Your task to perform on an android device: turn off translation in the chrome app Image 0: 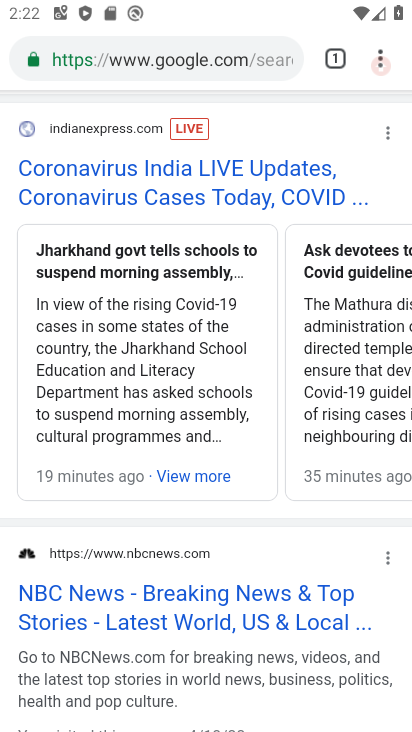
Step 0: press home button
Your task to perform on an android device: turn off translation in the chrome app Image 1: 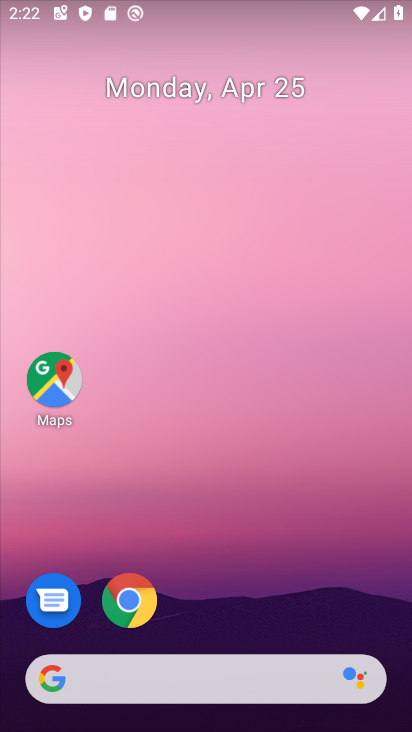
Step 1: drag from (383, 573) to (331, 139)
Your task to perform on an android device: turn off translation in the chrome app Image 2: 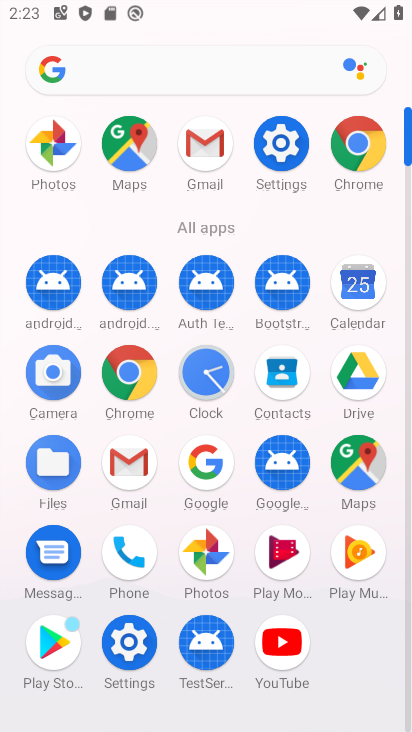
Step 2: click (120, 378)
Your task to perform on an android device: turn off translation in the chrome app Image 3: 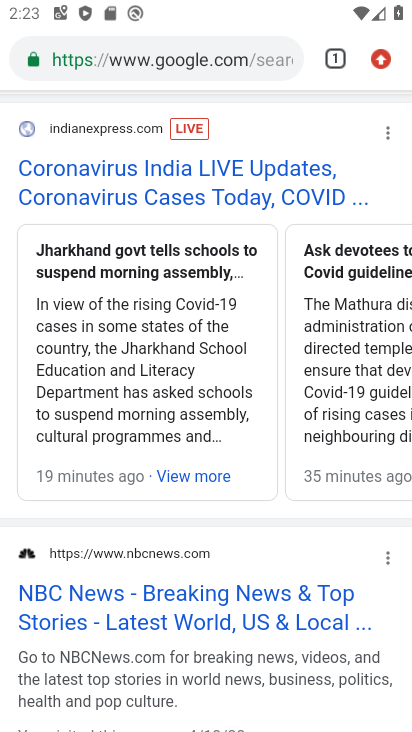
Step 3: drag from (380, 55) to (194, 637)
Your task to perform on an android device: turn off translation in the chrome app Image 4: 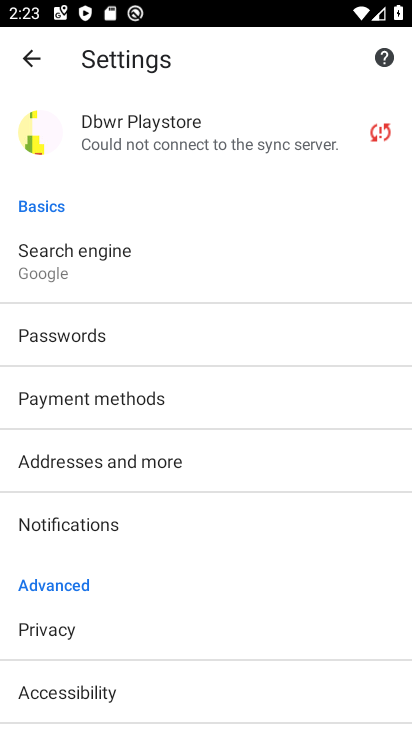
Step 4: drag from (287, 666) to (330, 256)
Your task to perform on an android device: turn off translation in the chrome app Image 5: 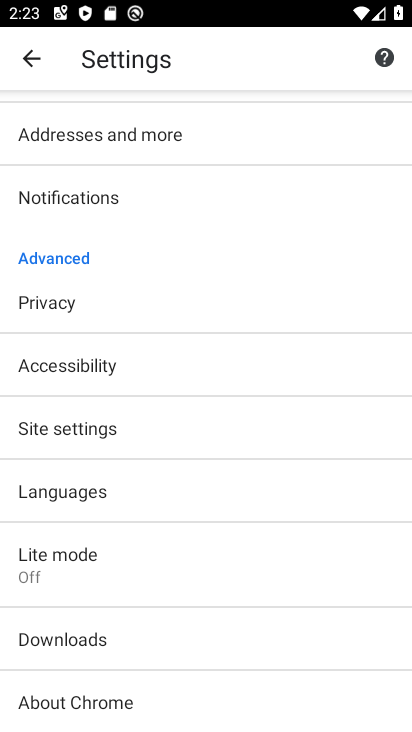
Step 5: click (40, 488)
Your task to perform on an android device: turn off translation in the chrome app Image 6: 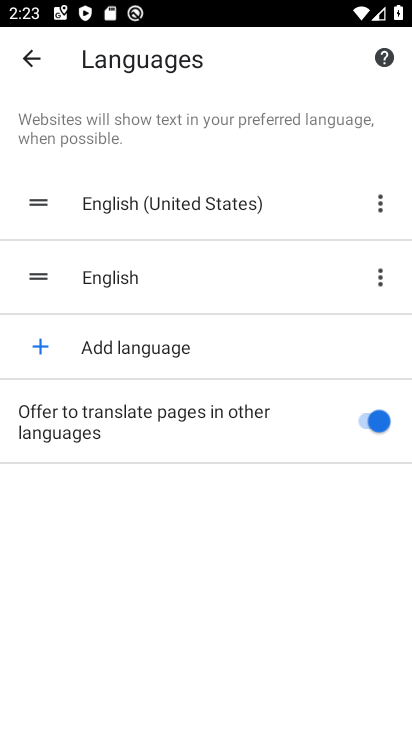
Step 6: click (364, 425)
Your task to perform on an android device: turn off translation in the chrome app Image 7: 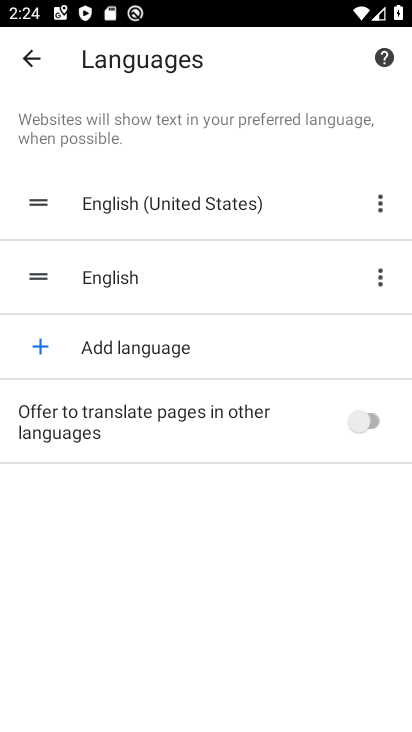
Step 7: task complete